Your task to perform on an android device: turn on sleep mode Image 0: 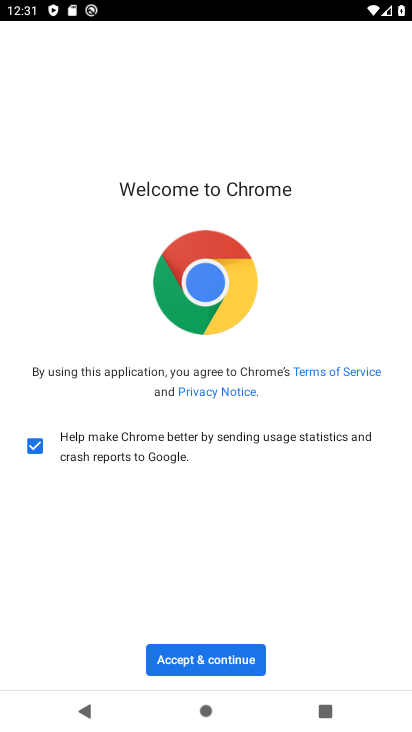
Step 0: press home button
Your task to perform on an android device: turn on sleep mode Image 1: 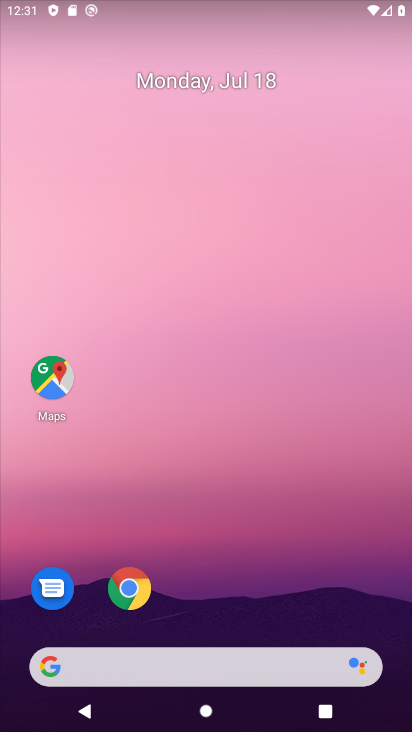
Step 1: drag from (297, 573) to (280, 54)
Your task to perform on an android device: turn on sleep mode Image 2: 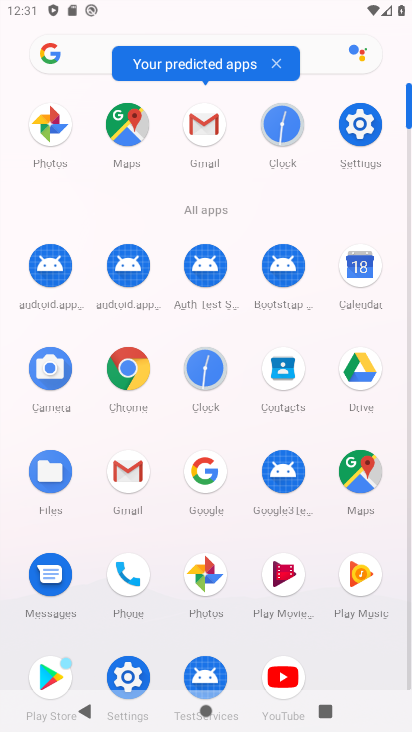
Step 2: click (363, 132)
Your task to perform on an android device: turn on sleep mode Image 3: 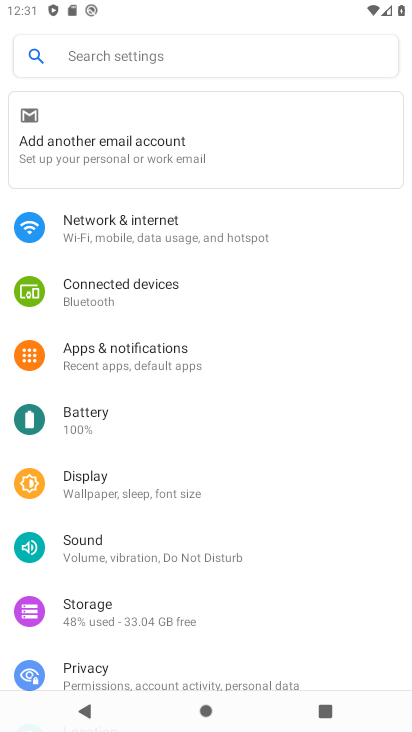
Step 3: click (174, 485)
Your task to perform on an android device: turn on sleep mode Image 4: 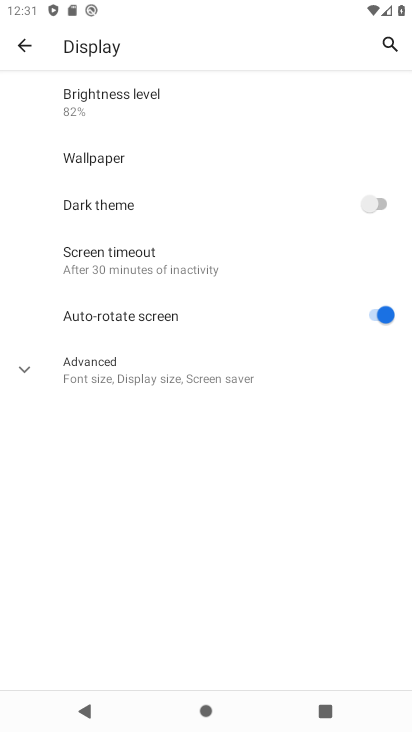
Step 4: click (210, 386)
Your task to perform on an android device: turn on sleep mode Image 5: 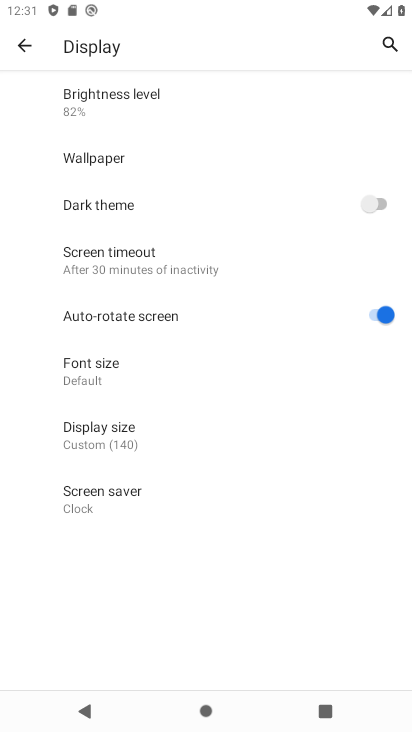
Step 5: click (35, 45)
Your task to perform on an android device: turn on sleep mode Image 6: 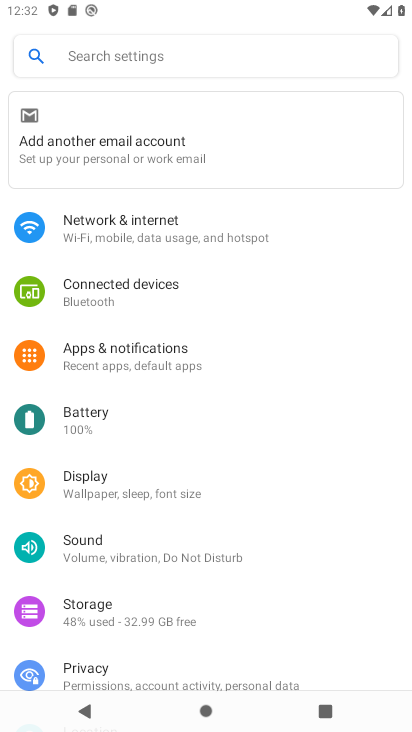
Step 6: task complete